Your task to perform on an android device: Open Yahoo.com Image 0: 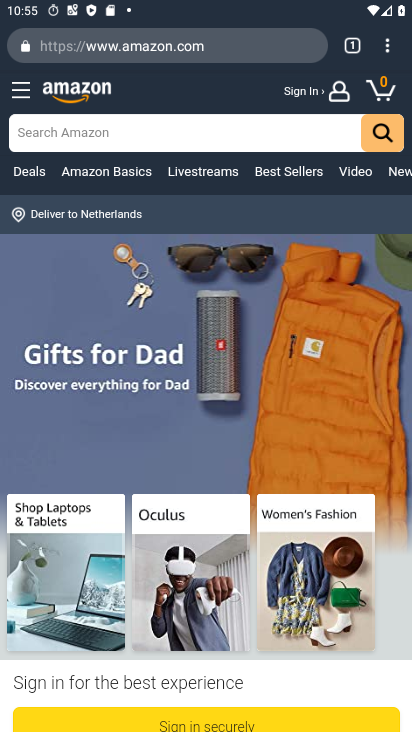
Step 0: click (102, 55)
Your task to perform on an android device: Open Yahoo.com Image 1: 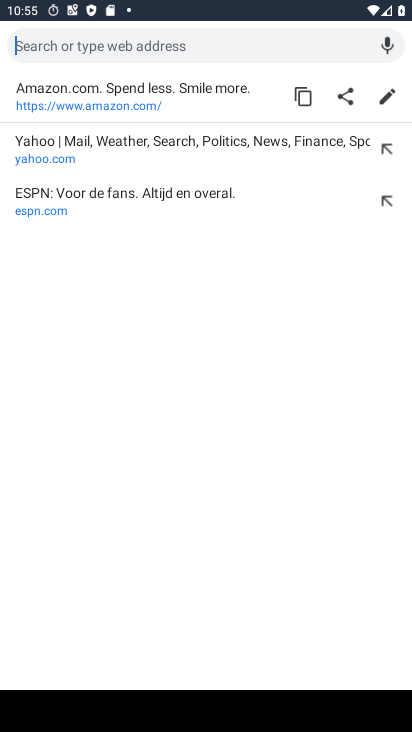
Step 1: click (42, 156)
Your task to perform on an android device: Open Yahoo.com Image 2: 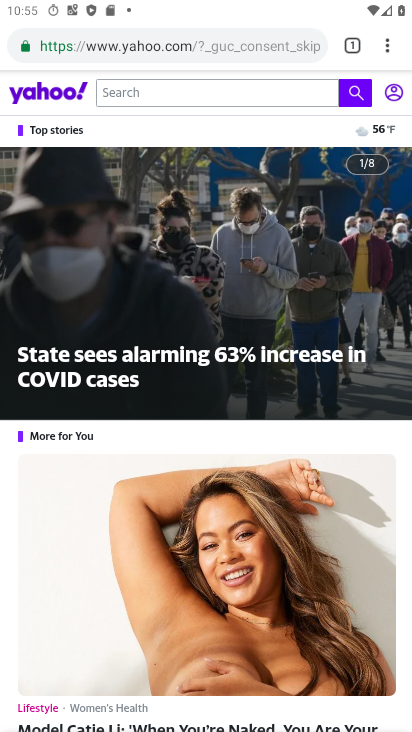
Step 2: task complete